Your task to perform on an android device: stop showing notifications on the lock screen Image 0: 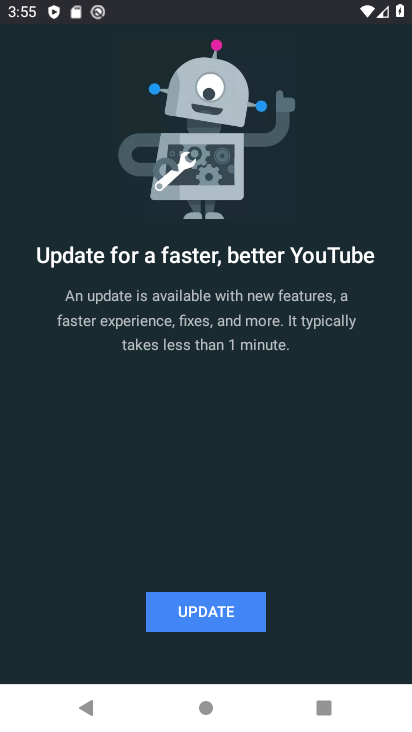
Step 0: press home button
Your task to perform on an android device: stop showing notifications on the lock screen Image 1: 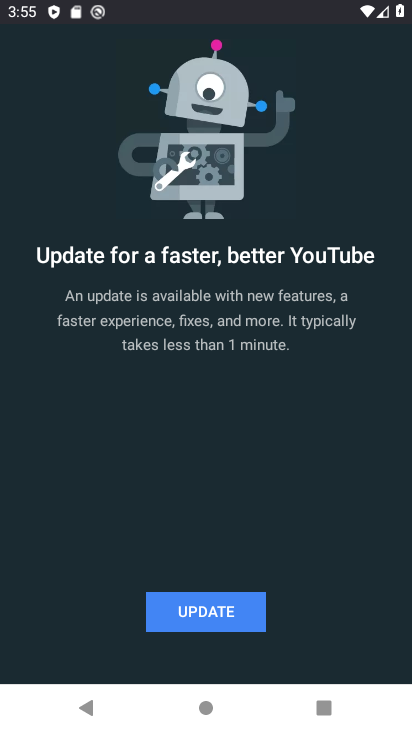
Step 1: press home button
Your task to perform on an android device: stop showing notifications on the lock screen Image 2: 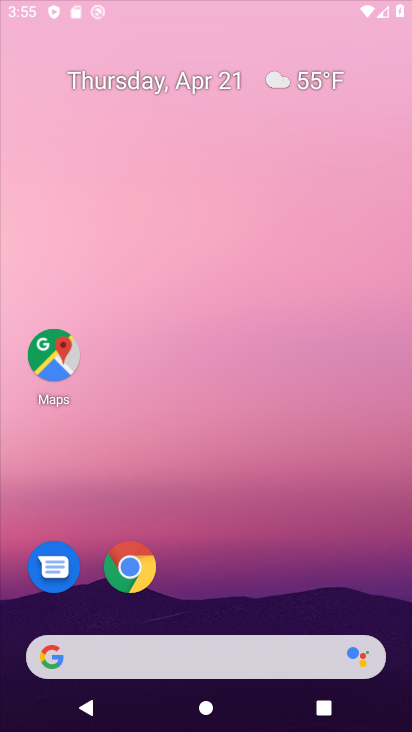
Step 2: press home button
Your task to perform on an android device: stop showing notifications on the lock screen Image 3: 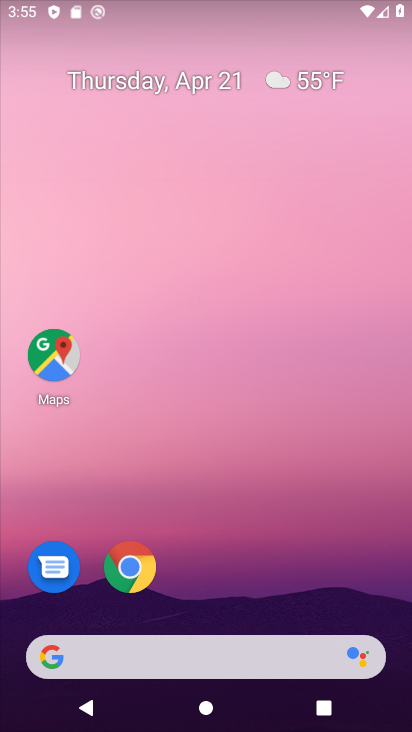
Step 3: press home button
Your task to perform on an android device: stop showing notifications on the lock screen Image 4: 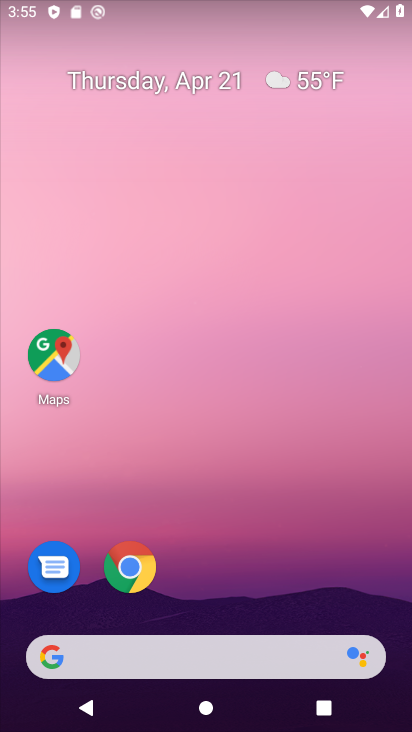
Step 4: drag from (255, 594) to (183, 211)
Your task to perform on an android device: stop showing notifications on the lock screen Image 5: 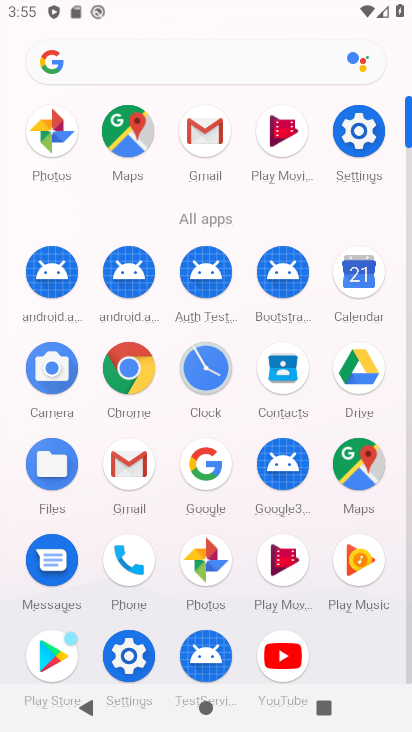
Step 5: click (355, 121)
Your task to perform on an android device: stop showing notifications on the lock screen Image 6: 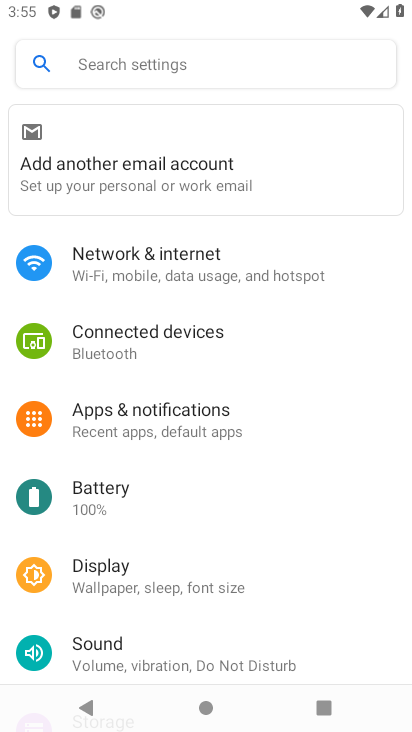
Step 6: click (129, 419)
Your task to perform on an android device: stop showing notifications on the lock screen Image 7: 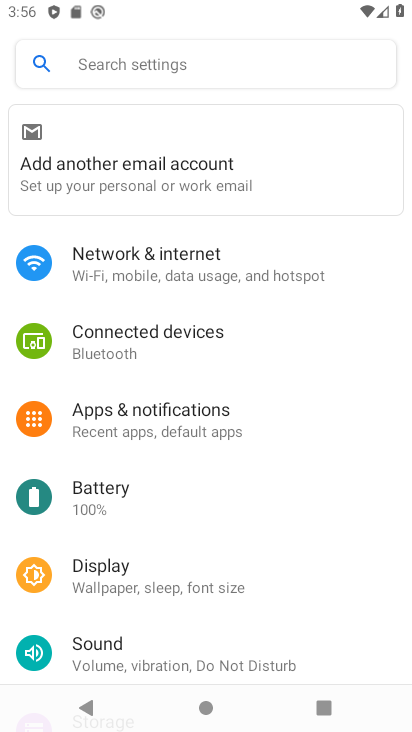
Step 7: click (152, 418)
Your task to perform on an android device: stop showing notifications on the lock screen Image 8: 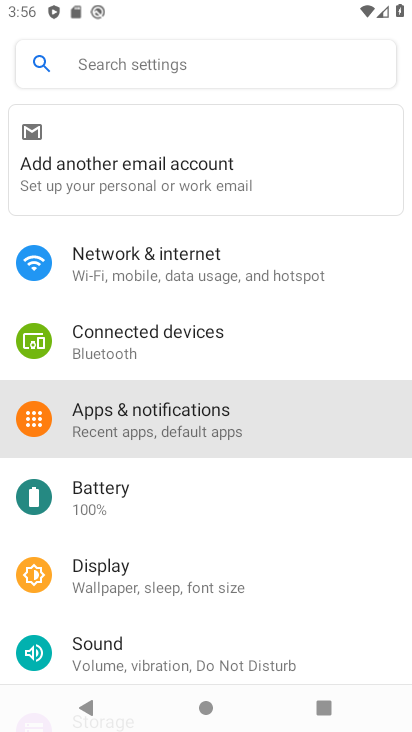
Step 8: click (152, 416)
Your task to perform on an android device: stop showing notifications on the lock screen Image 9: 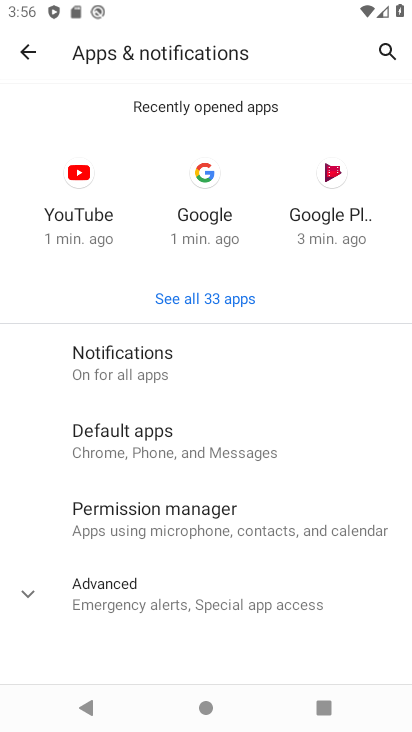
Step 9: click (133, 366)
Your task to perform on an android device: stop showing notifications on the lock screen Image 10: 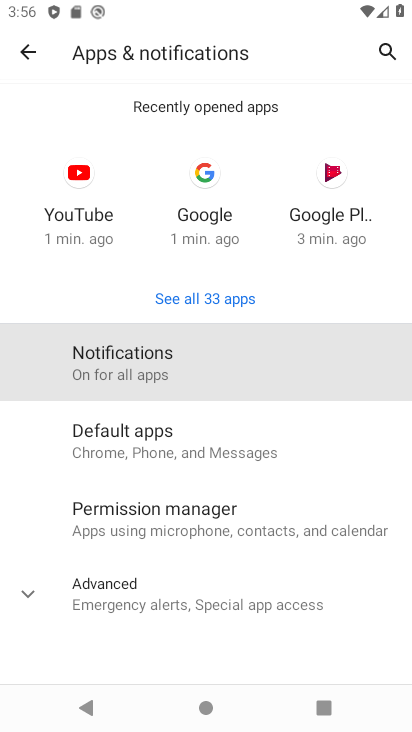
Step 10: click (133, 365)
Your task to perform on an android device: stop showing notifications on the lock screen Image 11: 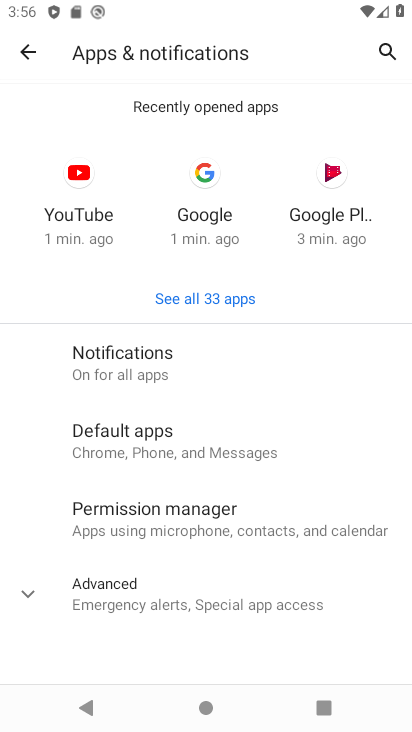
Step 11: click (137, 360)
Your task to perform on an android device: stop showing notifications on the lock screen Image 12: 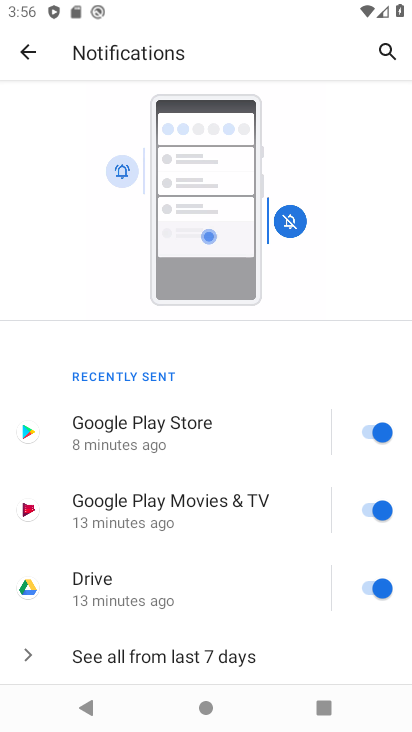
Step 12: drag from (183, 536) to (51, 41)
Your task to perform on an android device: stop showing notifications on the lock screen Image 13: 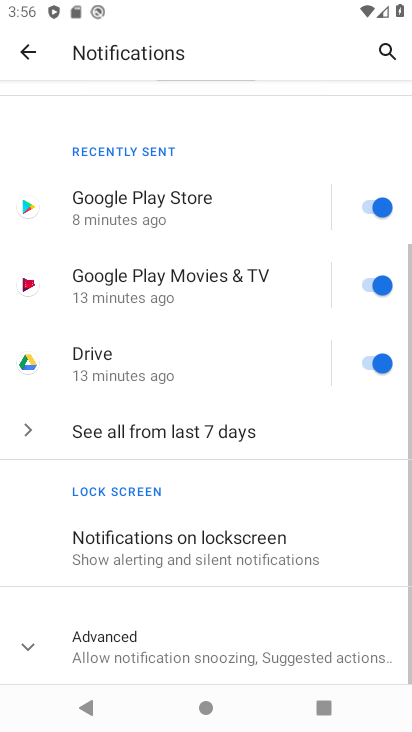
Step 13: click (158, 183)
Your task to perform on an android device: stop showing notifications on the lock screen Image 14: 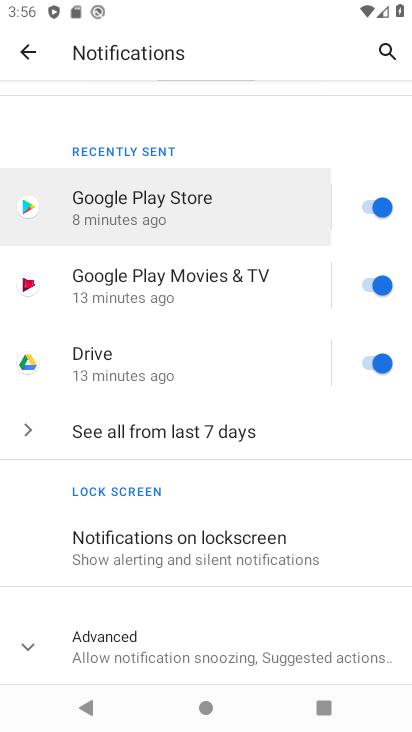
Step 14: click (187, 534)
Your task to perform on an android device: stop showing notifications on the lock screen Image 15: 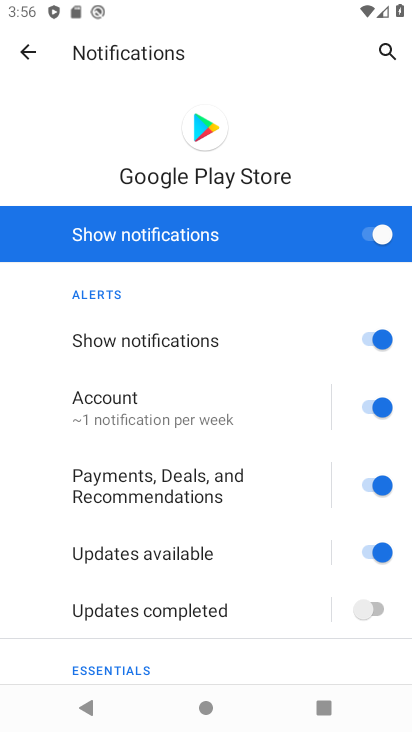
Step 15: task complete